Your task to perform on an android device: When is my next appointment? Image 0: 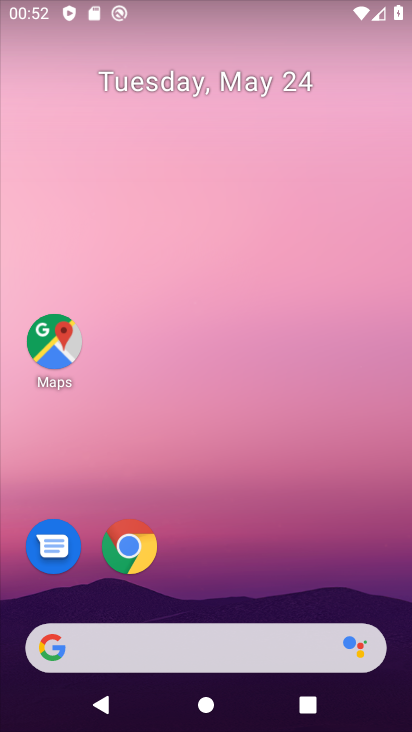
Step 0: drag from (281, 643) to (333, 35)
Your task to perform on an android device: When is my next appointment? Image 1: 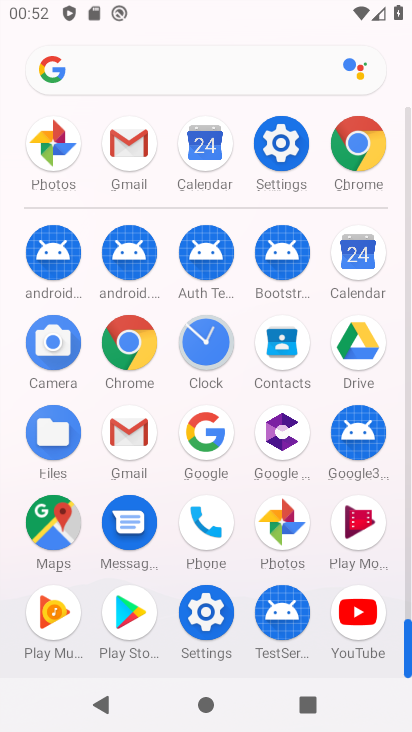
Step 1: click (363, 252)
Your task to perform on an android device: When is my next appointment? Image 2: 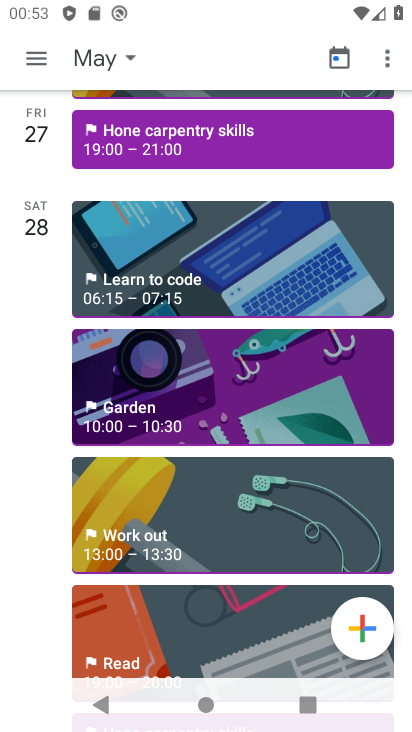
Step 2: click (125, 57)
Your task to perform on an android device: When is my next appointment? Image 3: 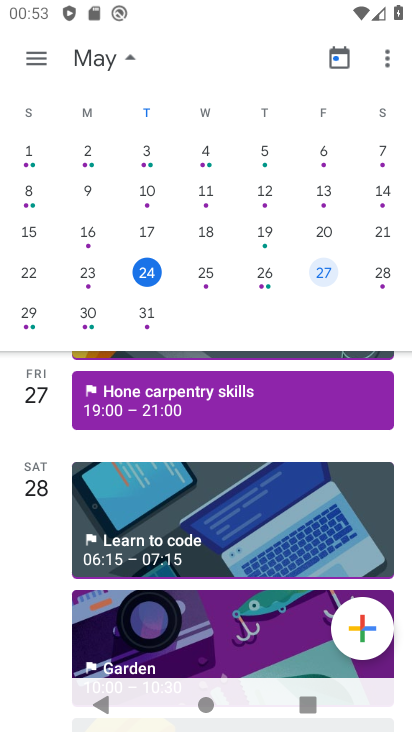
Step 3: click (210, 270)
Your task to perform on an android device: When is my next appointment? Image 4: 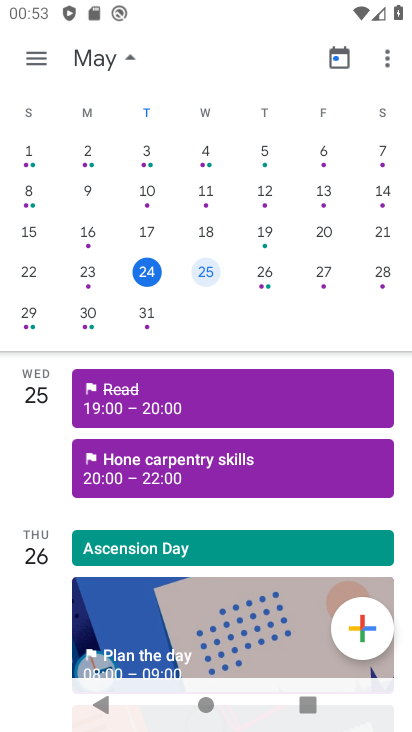
Step 4: task complete